Your task to perform on an android device: Search for vegetarian restaurants on Maps Image 0: 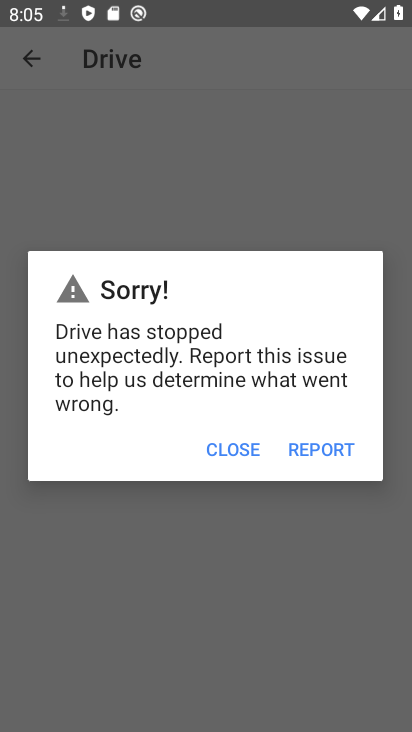
Step 0: press back button
Your task to perform on an android device: Search for vegetarian restaurants on Maps Image 1: 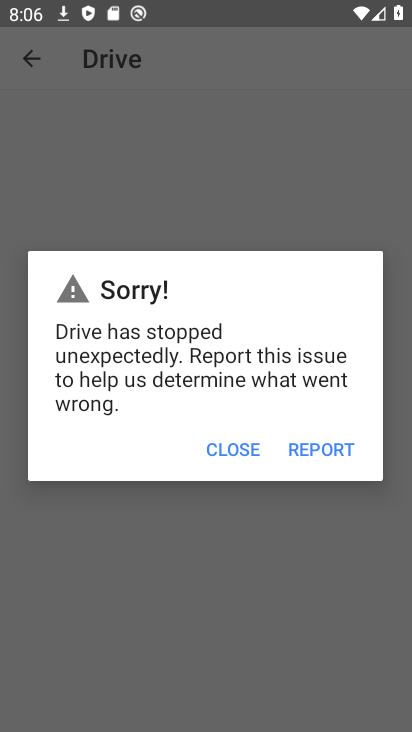
Step 1: press home button
Your task to perform on an android device: Search for vegetarian restaurants on Maps Image 2: 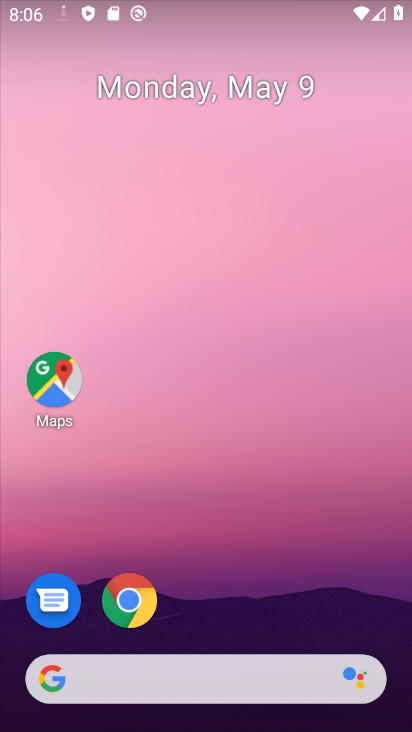
Step 2: drag from (266, 579) to (267, 0)
Your task to perform on an android device: Search for vegetarian restaurants on Maps Image 3: 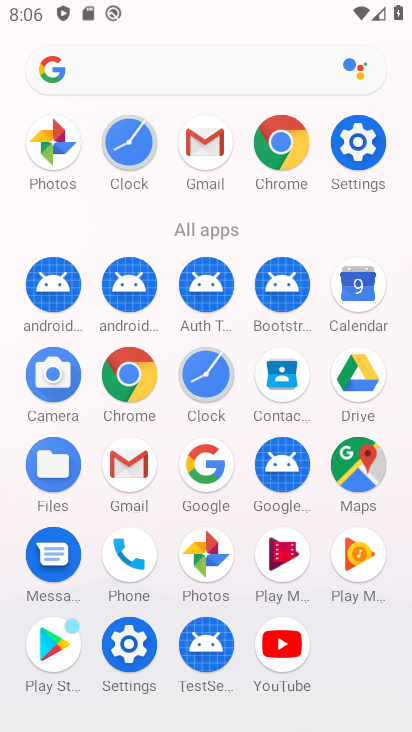
Step 3: click (356, 460)
Your task to perform on an android device: Search for vegetarian restaurants on Maps Image 4: 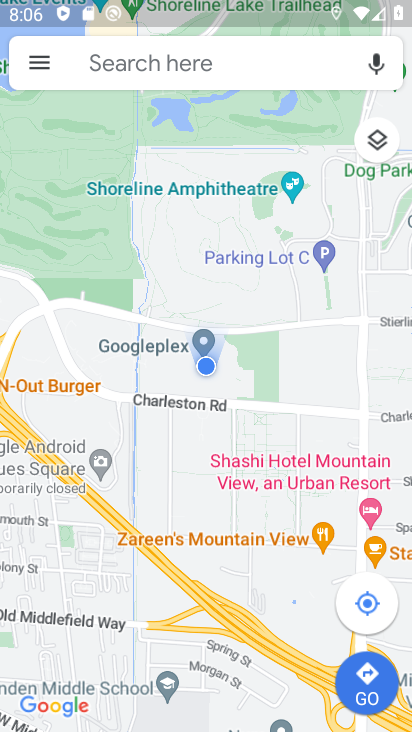
Step 4: click (219, 57)
Your task to perform on an android device: Search for vegetarian restaurants on Maps Image 5: 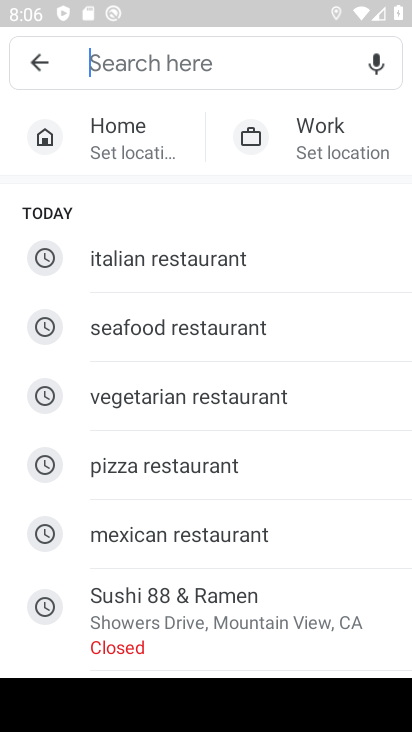
Step 5: drag from (259, 556) to (294, 247)
Your task to perform on an android device: Search for vegetarian restaurants on Maps Image 6: 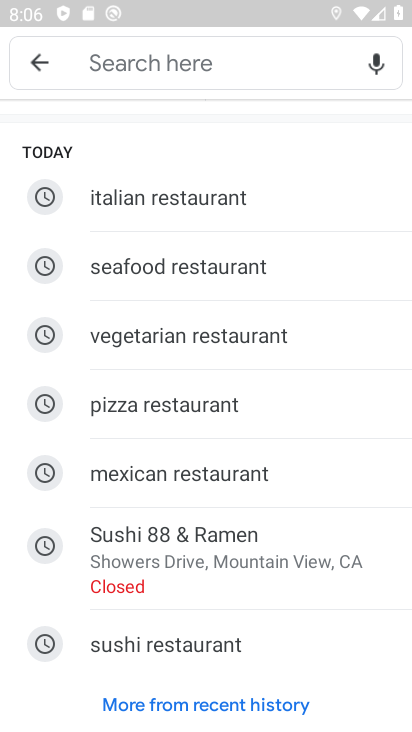
Step 6: click (155, 54)
Your task to perform on an android device: Search for vegetarian restaurants on Maps Image 7: 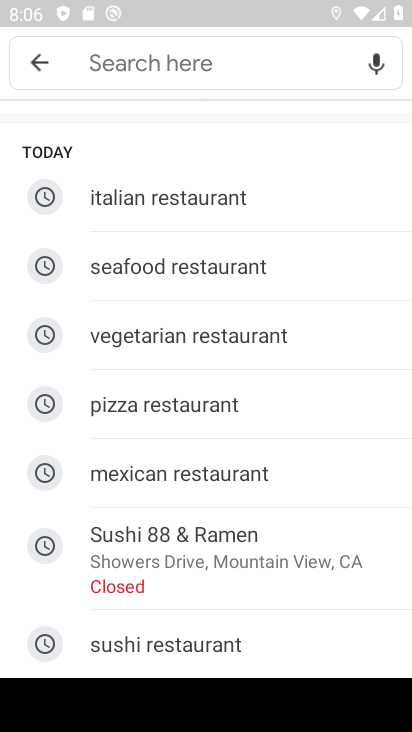
Step 7: type "vegetarian restaurants"
Your task to perform on an android device: Search for vegetarian restaurants on Maps Image 8: 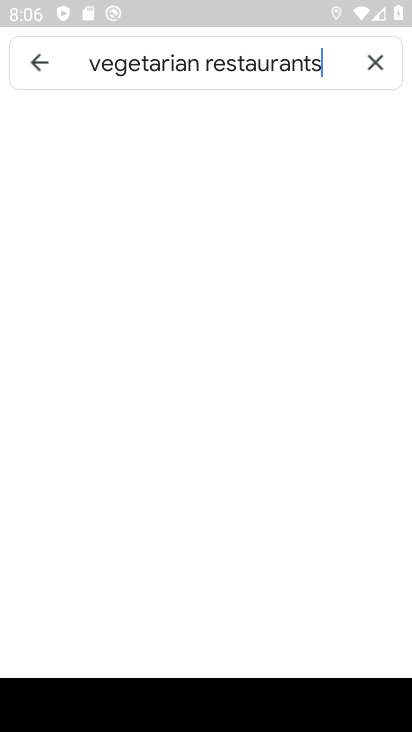
Step 8: type ""
Your task to perform on an android device: Search for vegetarian restaurants on Maps Image 9: 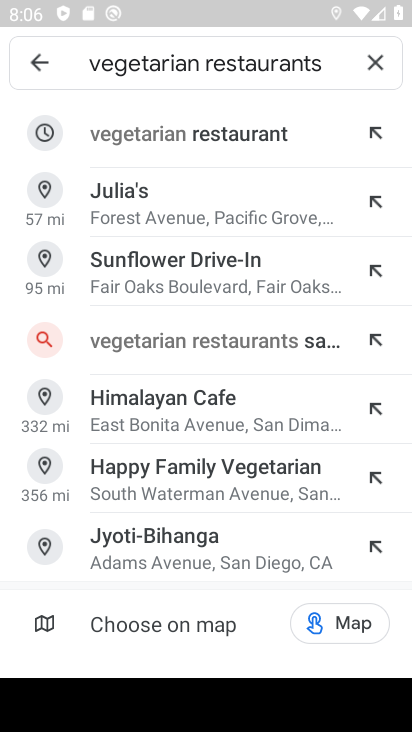
Step 9: click (164, 127)
Your task to perform on an android device: Search for vegetarian restaurants on Maps Image 10: 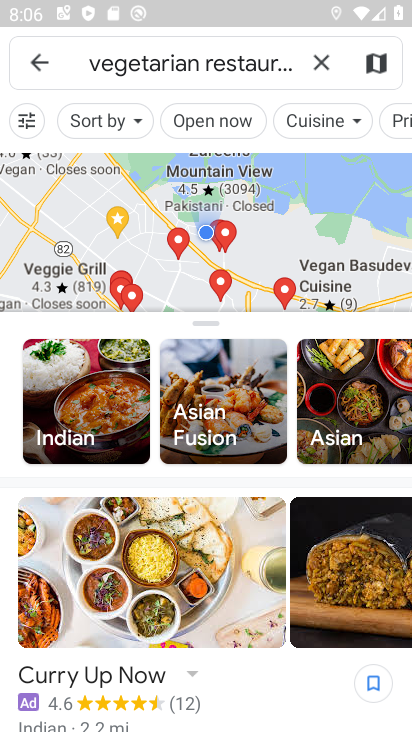
Step 10: task complete